Your task to perform on an android device: turn off smart reply in the gmail app Image 0: 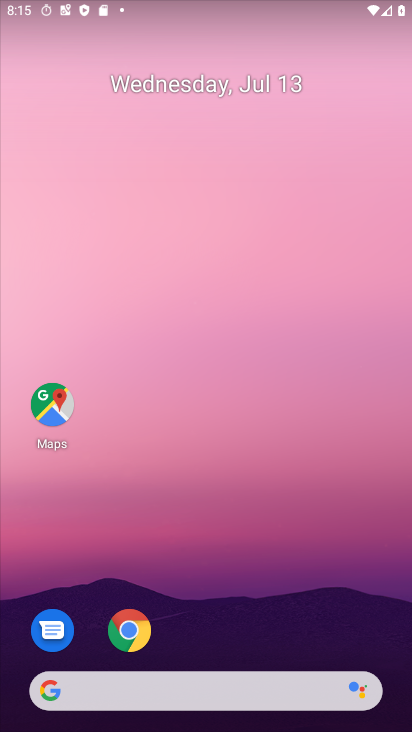
Step 0: drag from (335, 619) to (358, 147)
Your task to perform on an android device: turn off smart reply in the gmail app Image 1: 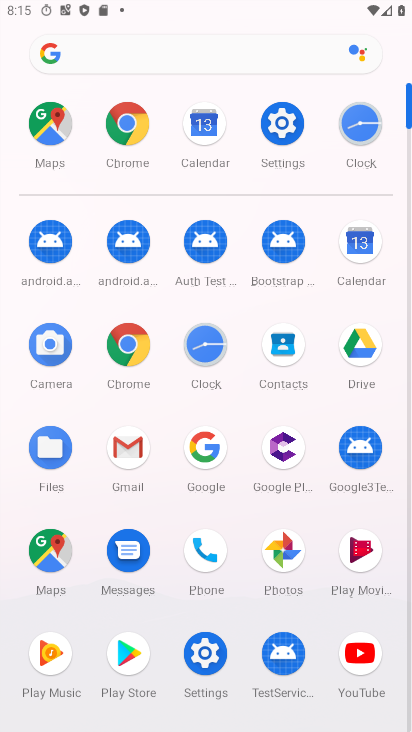
Step 1: click (126, 446)
Your task to perform on an android device: turn off smart reply in the gmail app Image 2: 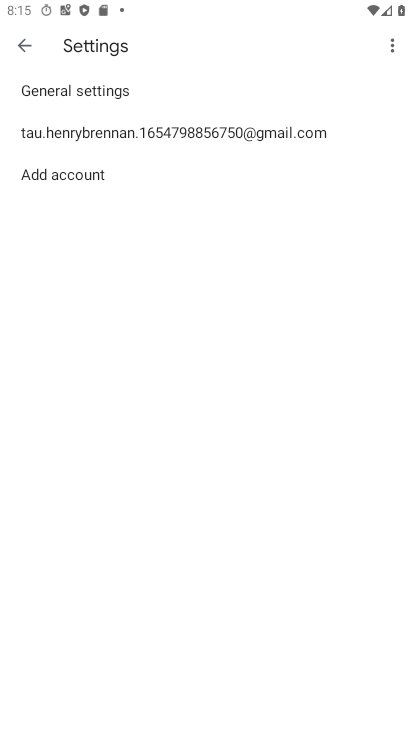
Step 2: click (195, 135)
Your task to perform on an android device: turn off smart reply in the gmail app Image 3: 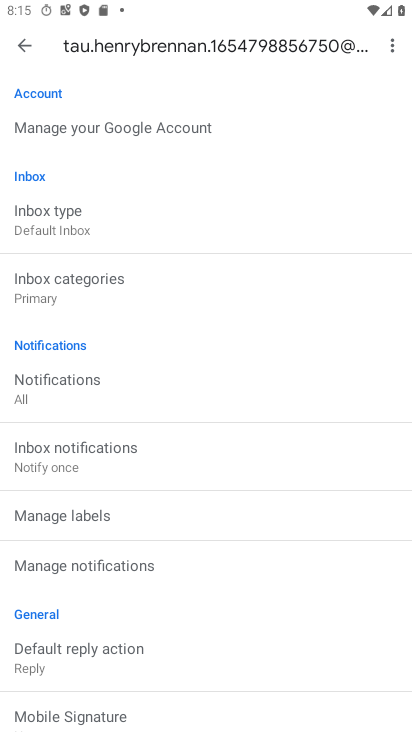
Step 3: drag from (291, 422) to (306, 251)
Your task to perform on an android device: turn off smart reply in the gmail app Image 4: 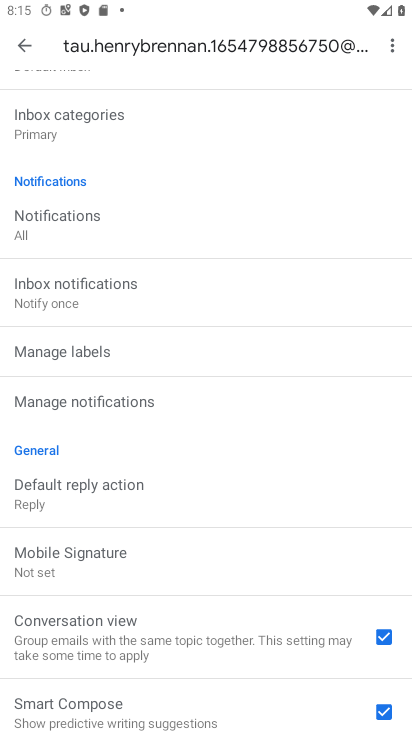
Step 4: drag from (293, 453) to (294, 248)
Your task to perform on an android device: turn off smart reply in the gmail app Image 5: 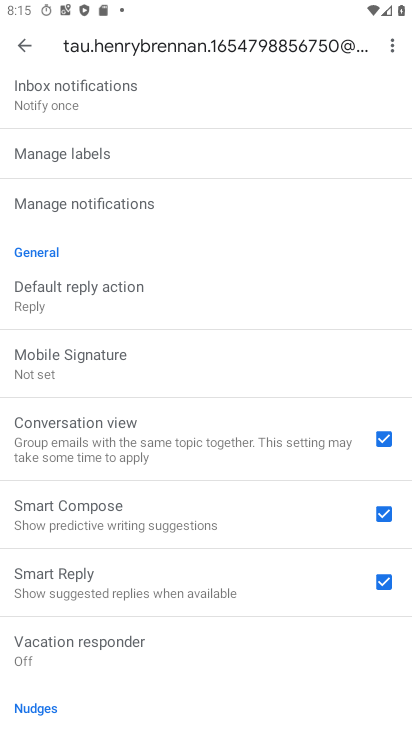
Step 5: drag from (294, 496) to (291, 361)
Your task to perform on an android device: turn off smart reply in the gmail app Image 6: 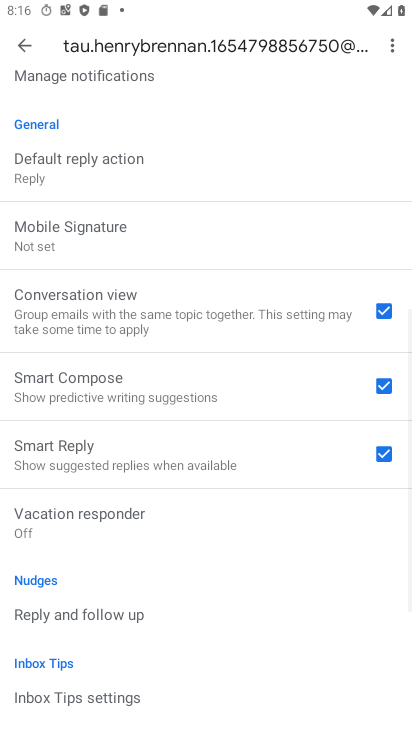
Step 6: drag from (294, 536) to (288, 378)
Your task to perform on an android device: turn off smart reply in the gmail app Image 7: 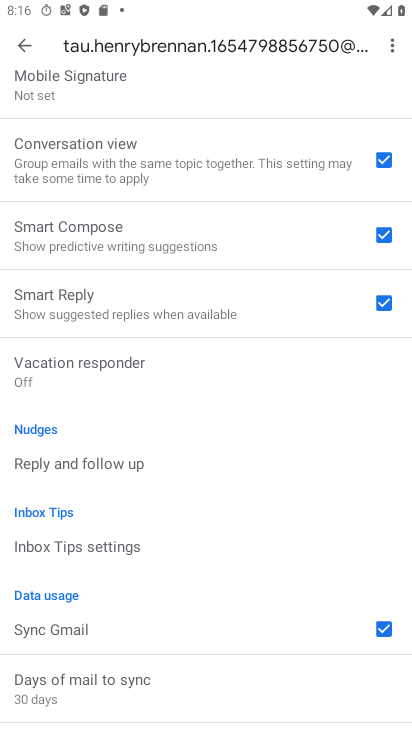
Step 7: drag from (268, 591) to (280, 444)
Your task to perform on an android device: turn off smart reply in the gmail app Image 8: 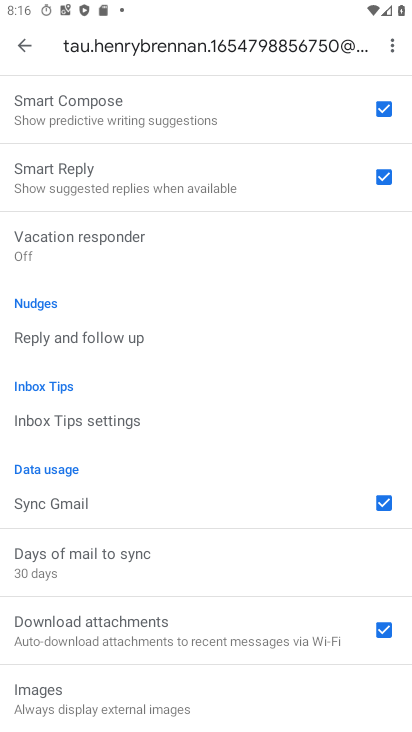
Step 8: drag from (278, 317) to (267, 501)
Your task to perform on an android device: turn off smart reply in the gmail app Image 9: 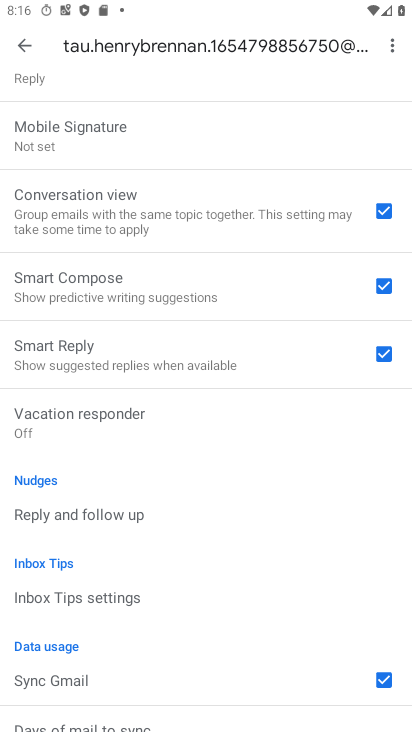
Step 9: drag from (290, 315) to (304, 525)
Your task to perform on an android device: turn off smart reply in the gmail app Image 10: 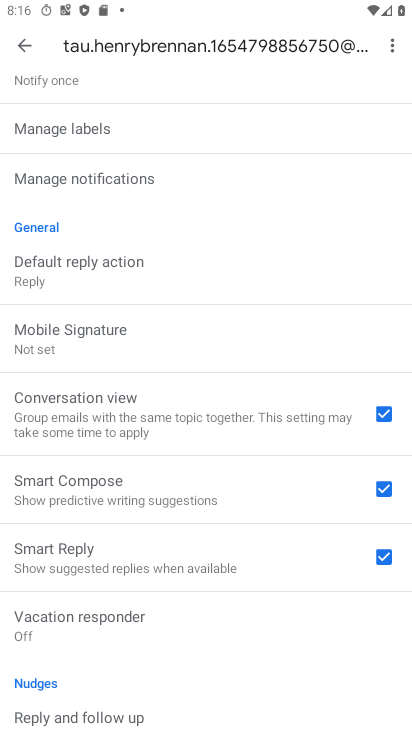
Step 10: drag from (303, 296) to (309, 580)
Your task to perform on an android device: turn off smart reply in the gmail app Image 11: 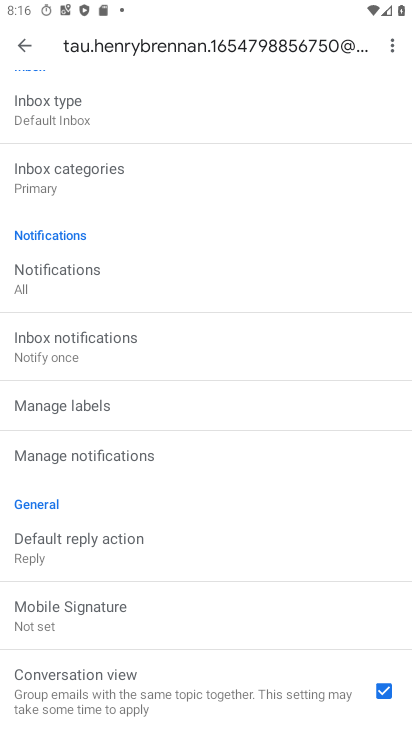
Step 11: drag from (288, 255) to (305, 502)
Your task to perform on an android device: turn off smart reply in the gmail app Image 12: 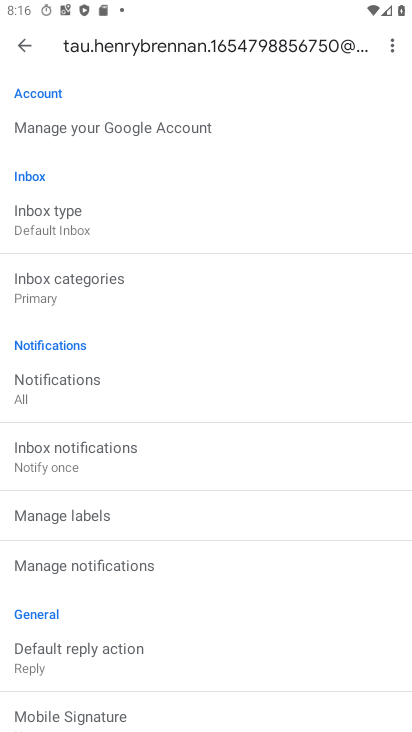
Step 12: drag from (294, 245) to (291, 415)
Your task to perform on an android device: turn off smart reply in the gmail app Image 13: 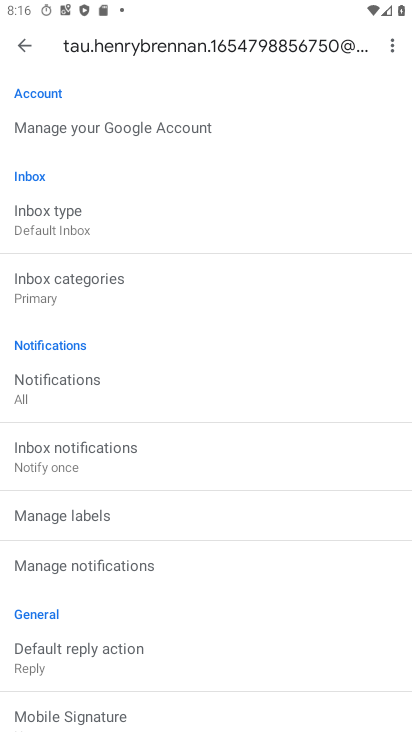
Step 13: drag from (266, 489) to (281, 321)
Your task to perform on an android device: turn off smart reply in the gmail app Image 14: 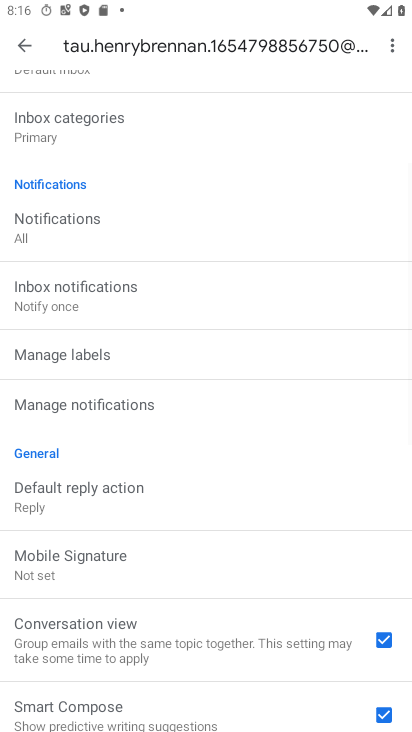
Step 14: drag from (278, 504) to (280, 323)
Your task to perform on an android device: turn off smart reply in the gmail app Image 15: 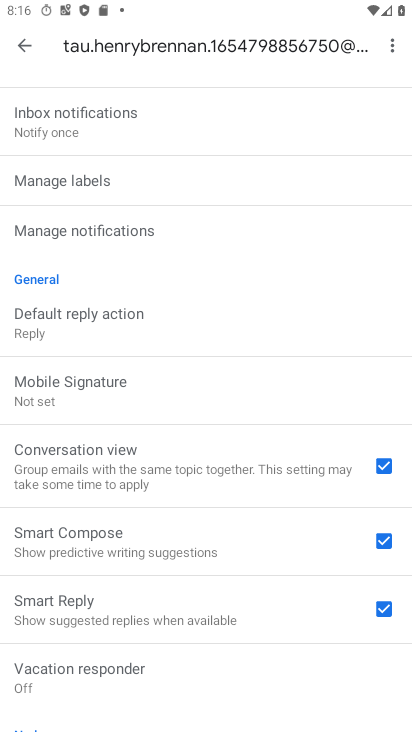
Step 15: drag from (273, 525) to (273, 335)
Your task to perform on an android device: turn off smart reply in the gmail app Image 16: 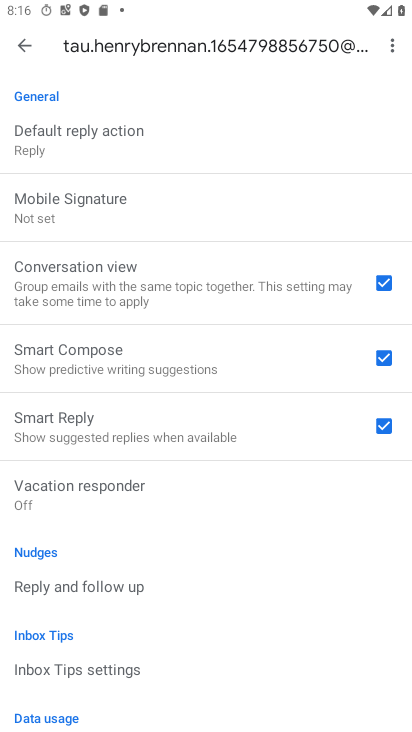
Step 16: click (383, 419)
Your task to perform on an android device: turn off smart reply in the gmail app Image 17: 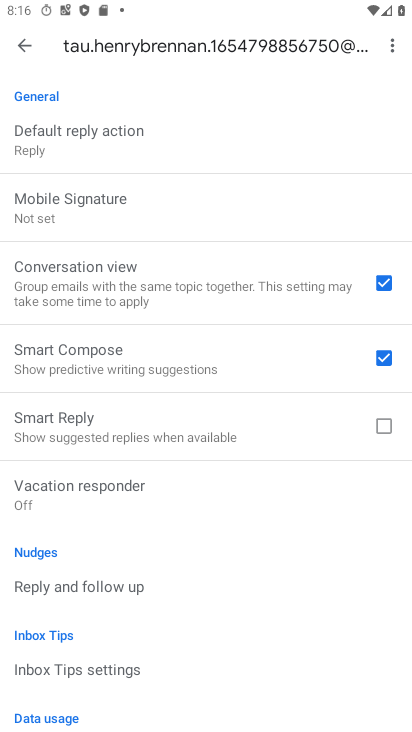
Step 17: task complete